Your task to perform on an android device: check battery use Image 0: 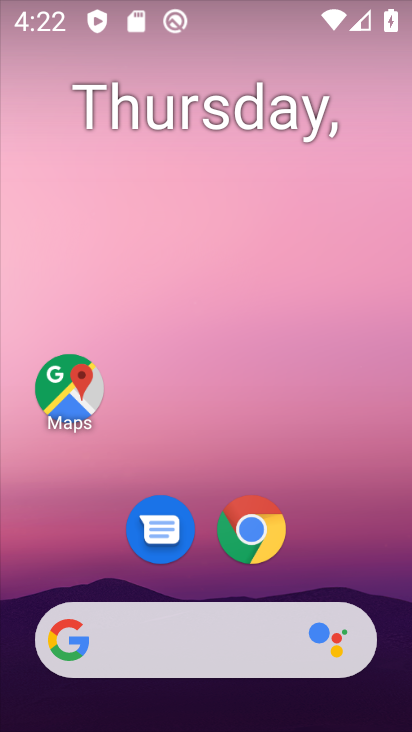
Step 0: drag from (200, 720) to (200, 75)
Your task to perform on an android device: check battery use Image 1: 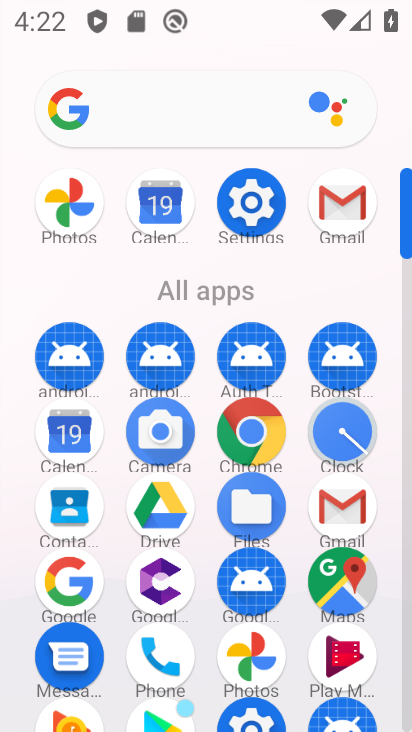
Step 1: click (258, 192)
Your task to perform on an android device: check battery use Image 2: 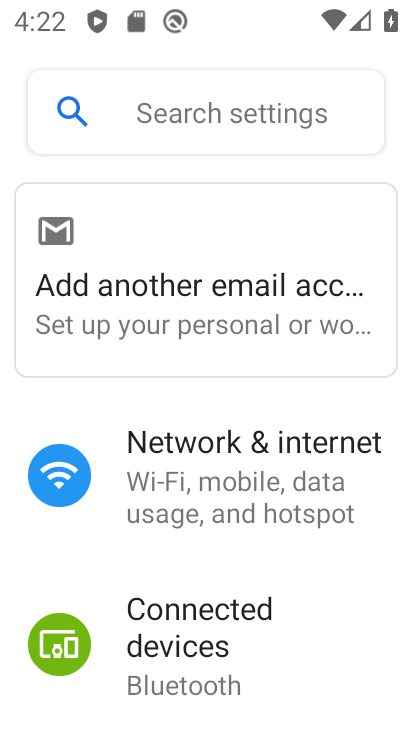
Step 2: drag from (222, 672) to (243, 342)
Your task to perform on an android device: check battery use Image 3: 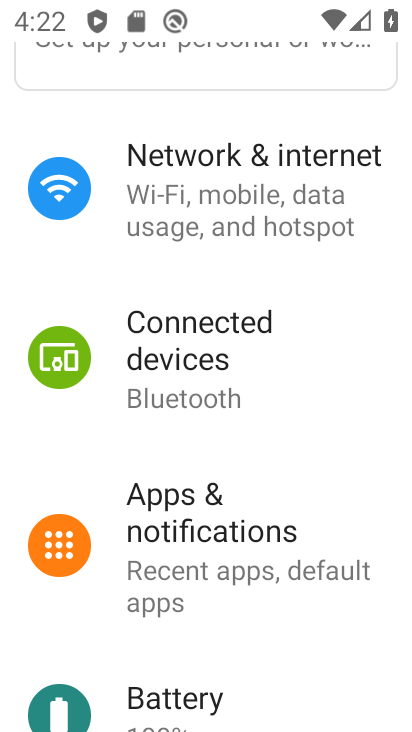
Step 3: drag from (235, 680) to (236, 359)
Your task to perform on an android device: check battery use Image 4: 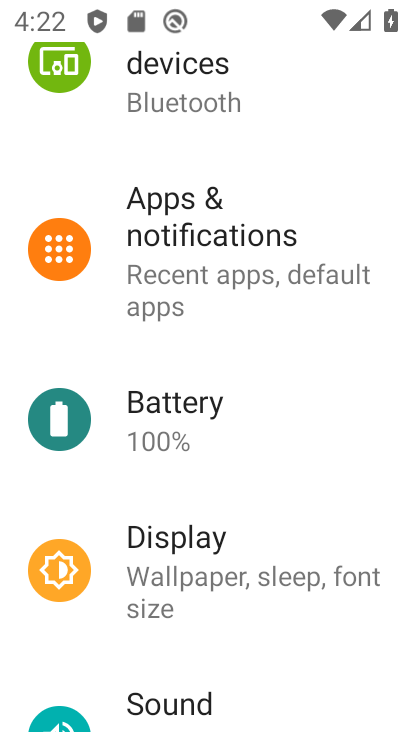
Step 4: click (187, 410)
Your task to perform on an android device: check battery use Image 5: 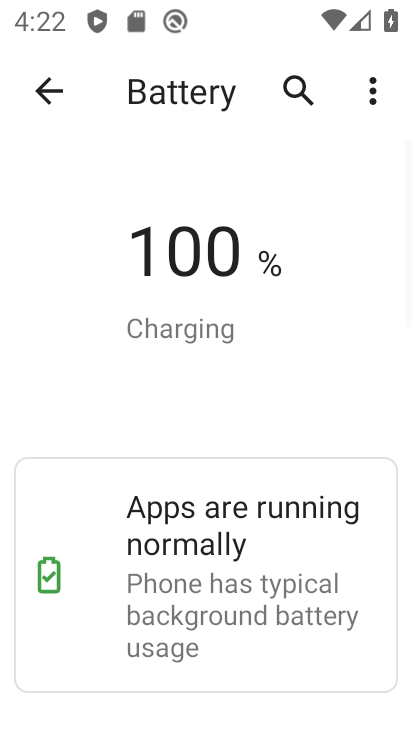
Step 5: click (373, 91)
Your task to perform on an android device: check battery use Image 6: 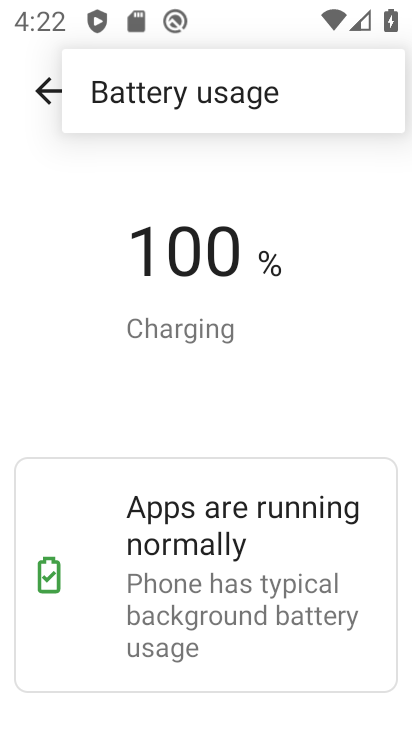
Step 6: click (252, 97)
Your task to perform on an android device: check battery use Image 7: 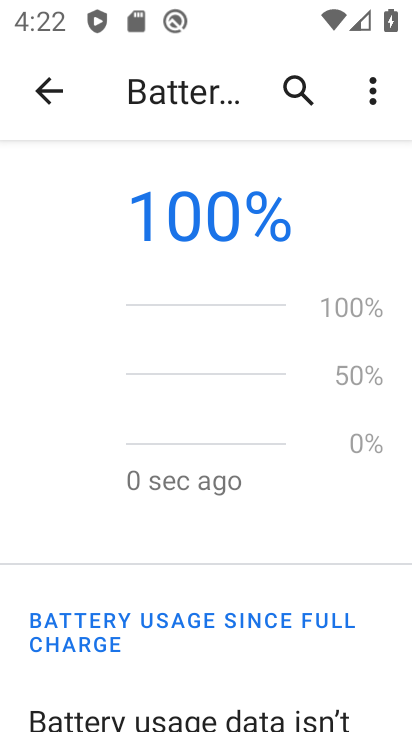
Step 7: task complete